Your task to perform on an android device: Open the calendar and show me this week's events? Image 0: 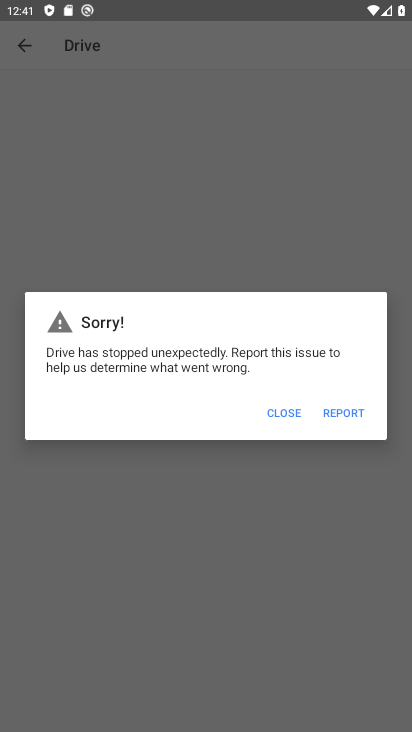
Step 0: press home button
Your task to perform on an android device: Open the calendar and show me this week's events? Image 1: 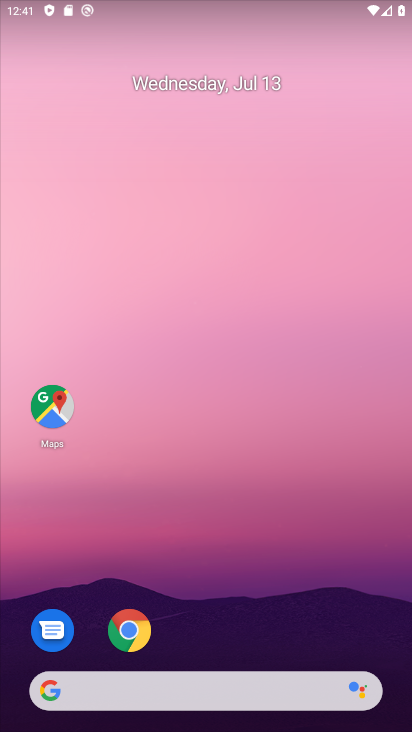
Step 1: drag from (22, 715) to (186, 98)
Your task to perform on an android device: Open the calendar and show me this week's events? Image 2: 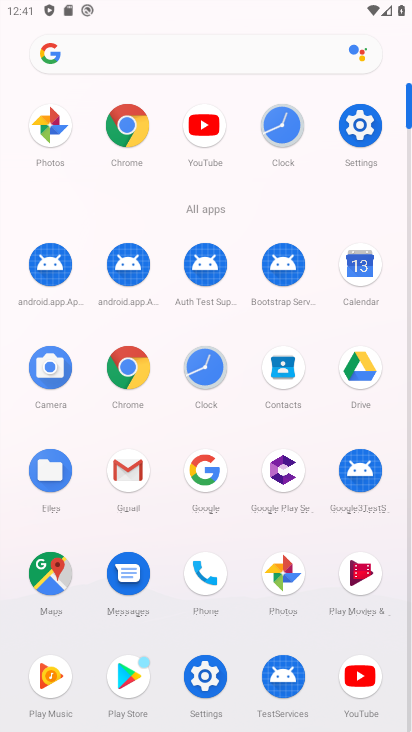
Step 2: click (364, 286)
Your task to perform on an android device: Open the calendar and show me this week's events? Image 3: 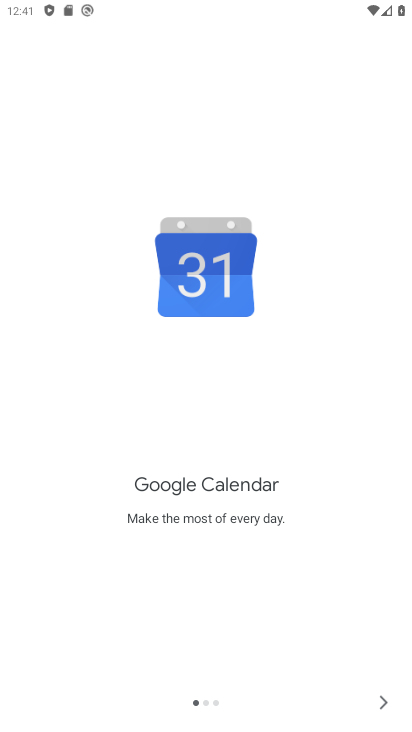
Step 3: click (378, 707)
Your task to perform on an android device: Open the calendar and show me this week's events? Image 4: 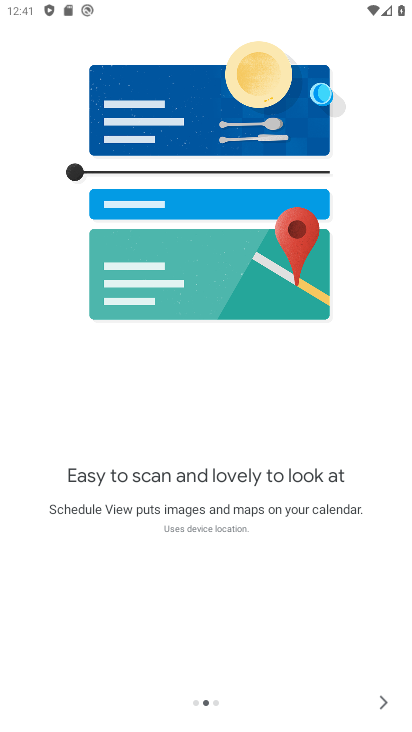
Step 4: click (382, 701)
Your task to perform on an android device: Open the calendar and show me this week's events? Image 5: 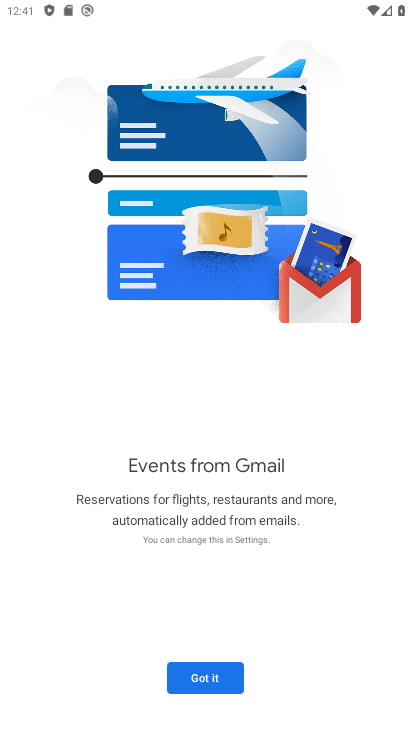
Step 5: click (197, 677)
Your task to perform on an android device: Open the calendar and show me this week's events? Image 6: 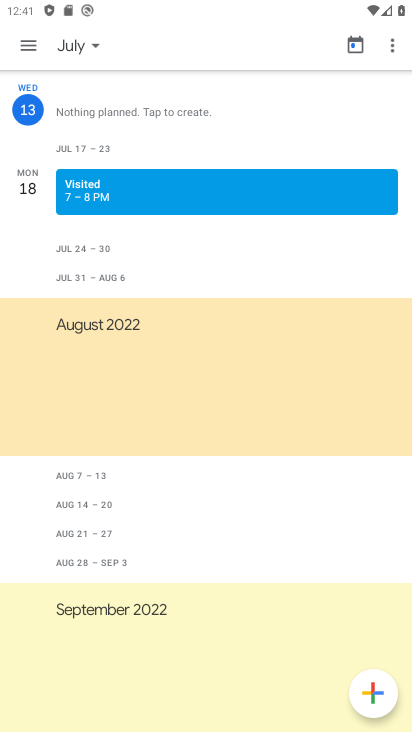
Step 6: click (88, 43)
Your task to perform on an android device: Open the calendar and show me this week's events? Image 7: 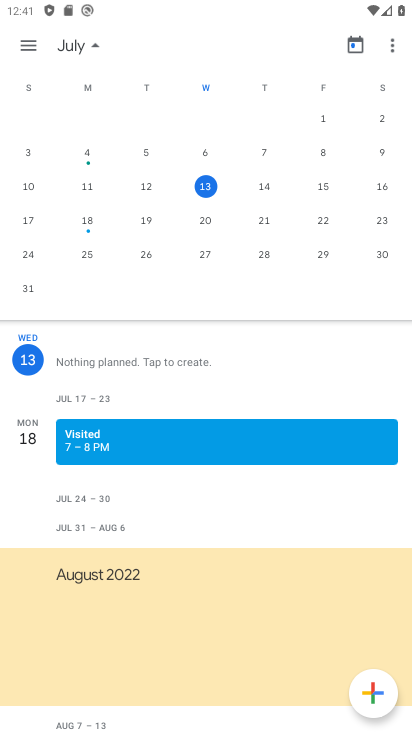
Step 7: task complete